Your task to perform on an android device: turn off sleep mode Image 0: 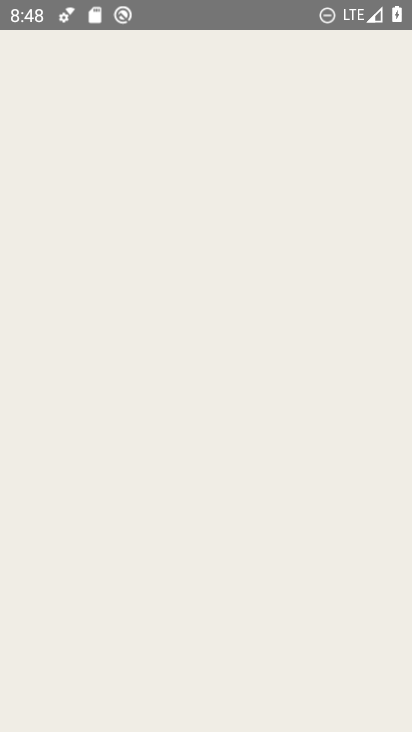
Step 0: drag from (352, 335) to (351, 251)
Your task to perform on an android device: turn off sleep mode Image 1: 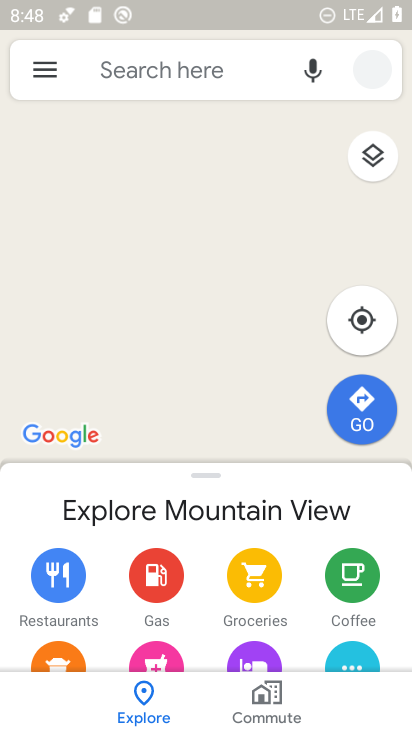
Step 1: press home button
Your task to perform on an android device: turn off sleep mode Image 2: 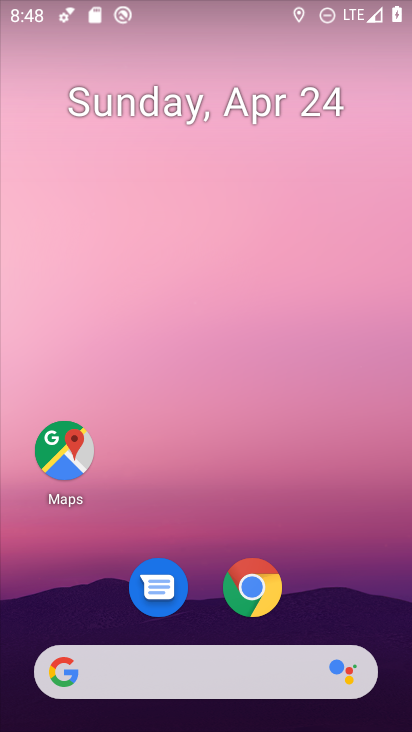
Step 2: drag from (373, 511) to (348, 158)
Your task to perform on an android device: turn off sleep mode Image 3: 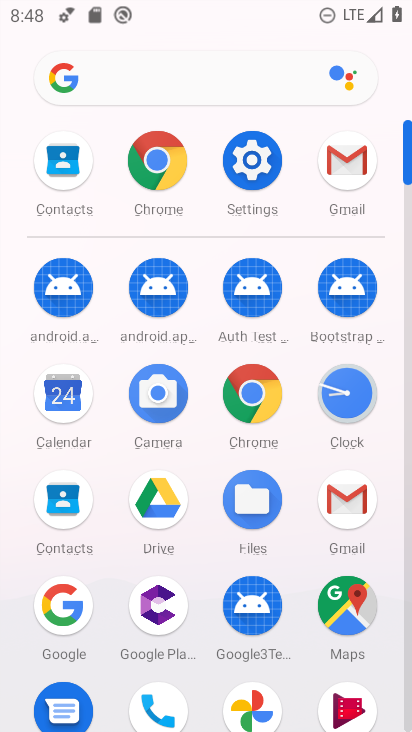
Step 3: click (274, 174)
Your task to perform on an android device: turn off sleep mode Image 4: 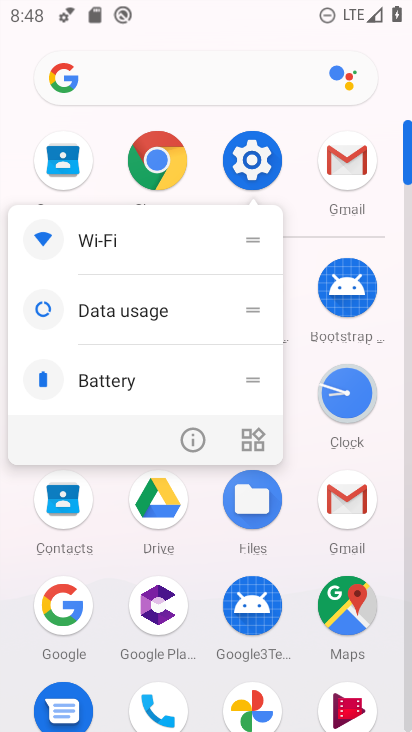
Step 4: click (262, 169)
Your task to perform on an android device: turn off sleep mode Image 5: 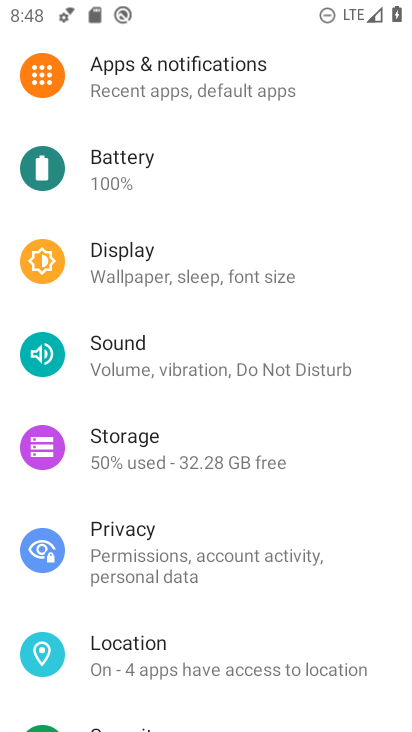
Step 5: drag from (275, 150) to (283, 598)
Your task to perform on an android device: turn off sleep mode Image 6: 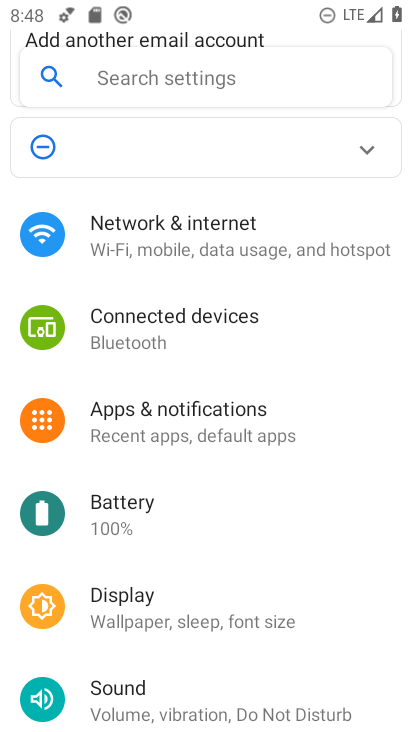
Step 6: click (212, 82)
Your task to perform on an android device: turn off sleep mode Image 7: 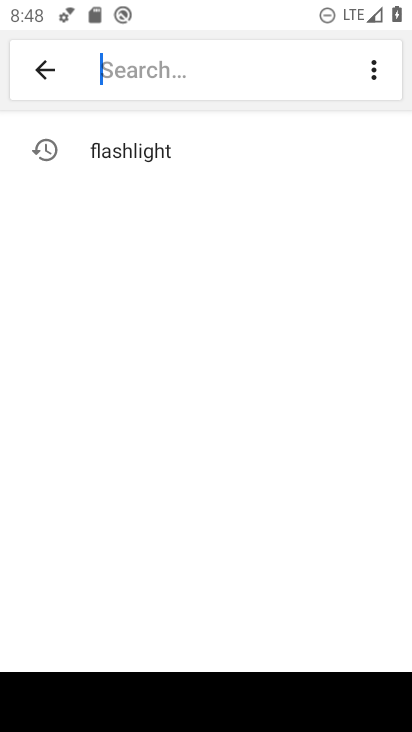
Step 7: type "sleep mode"
Your task to perform on an android device: turn off sleep mode Image 8: 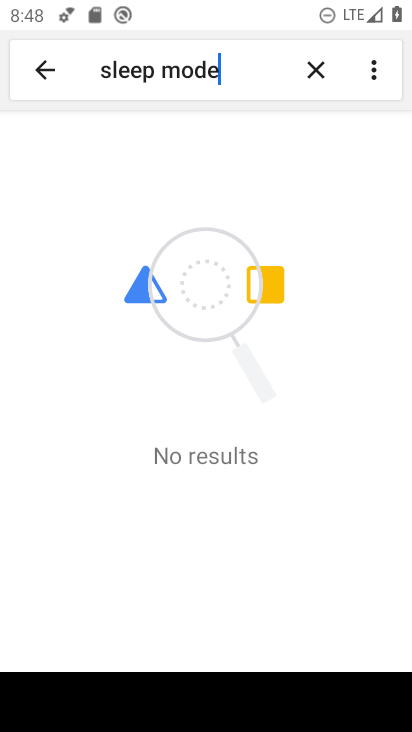
Step 8: task complete